Your task to perform on an android device: move an email to a new category in the gmail app Image 0: 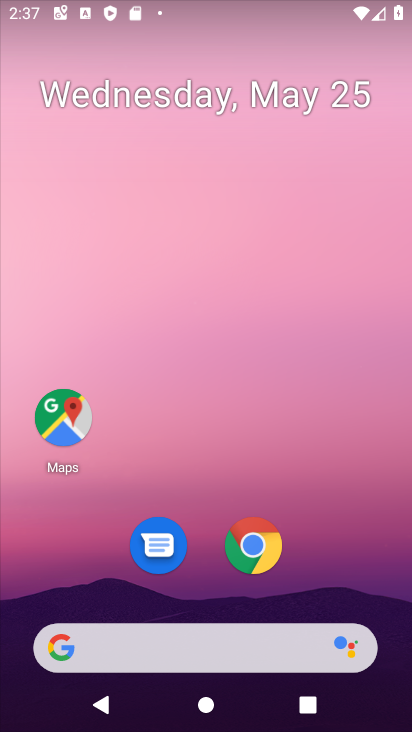
Step 0: drag from (375, 561) to (300, 70)
Your task to perform on an android device: move an email to a new category in the gmail app Image 1: 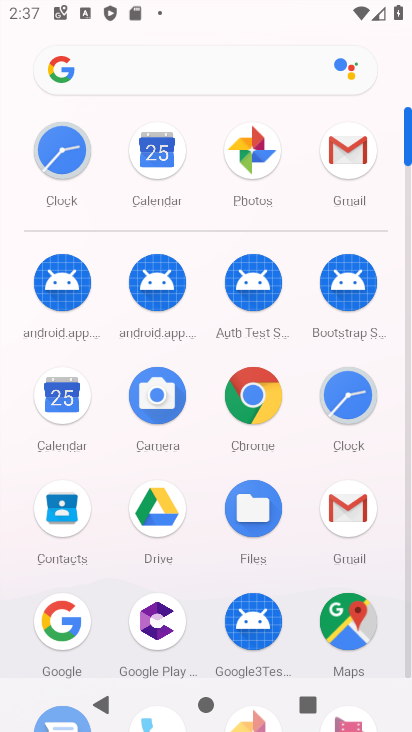
Step 1: click (348, 164)
Your task to perform on an android device: move an email to a new category in the gmail app Image 2: 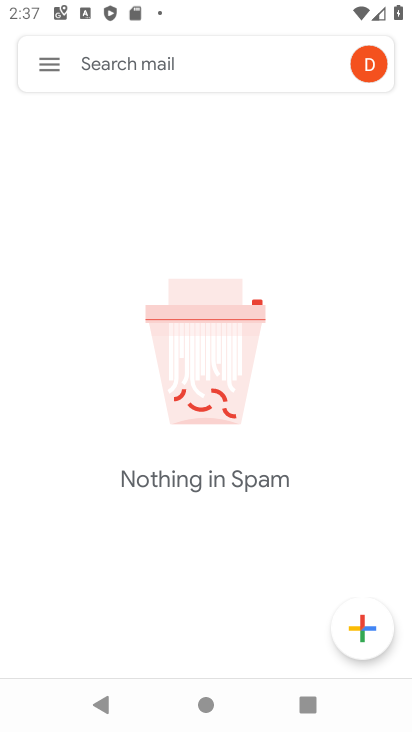
Step 2: click (62, 69)
Your task to perform on an android device: move an email to a new category in the gmail app Image 3: 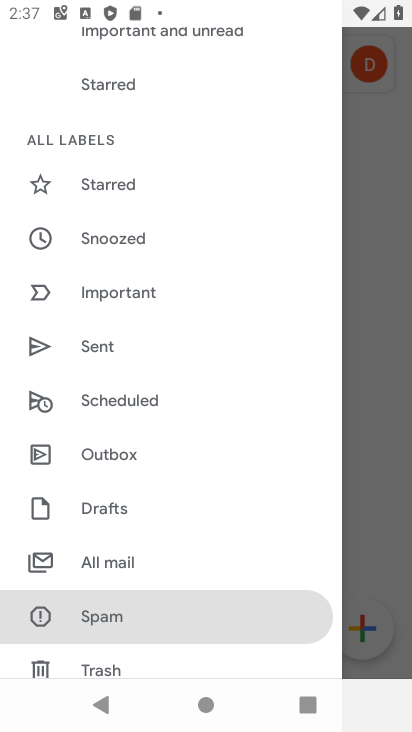
Step 3: drag from (173, 521) to (175, 353)
Your task to perform on an android device: move an email to a new category in the gmail app Image 4: 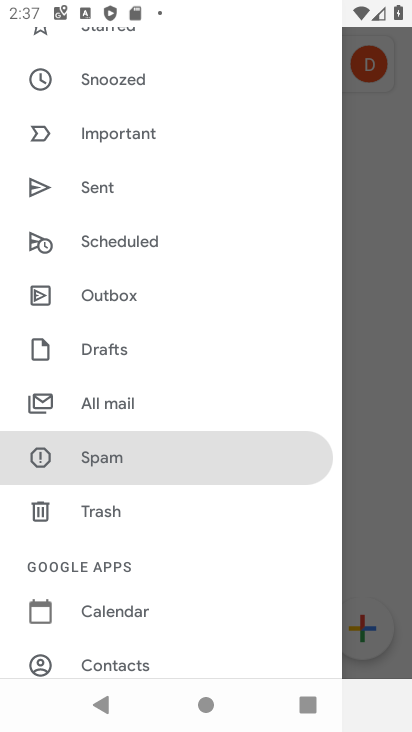
Step 4: click (182, 405)
Your task to perform on an android device: move an email to a new category in the gmail app Image 5: 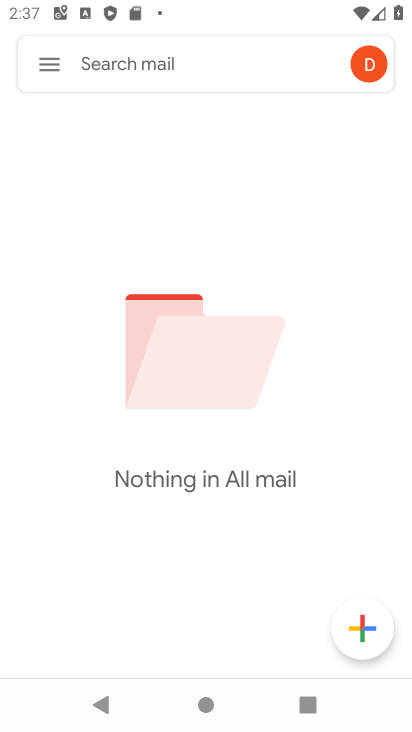
Step 5: task complete